Your task to perform on an android device: see tabs open on other devices in the chrome app Image 0: 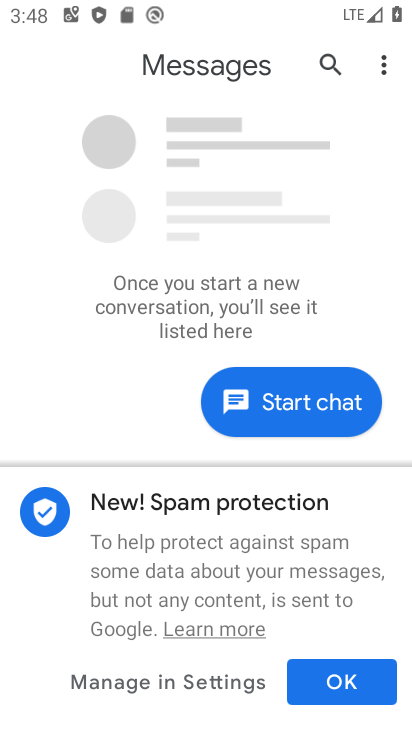
Step 0: press home button
Your task to perform on an android device: see tabs open on other devices in the chrome app Image 1: 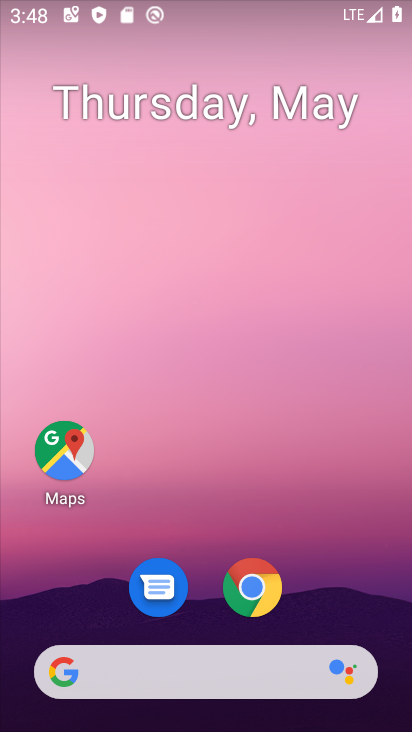
Step 1: drag from (272, 682) to (198, 138)
Your task to perform on an android device: see tabs open on other devices in the chrome app Image 2: 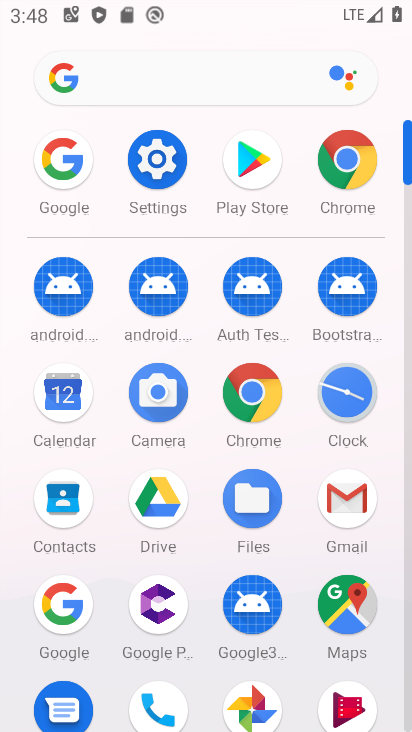
Step 2: drag from (241, 621) to (224, 522)
Your task to perform on an android device: see tabs open on other devices in the chrome app Image 3: 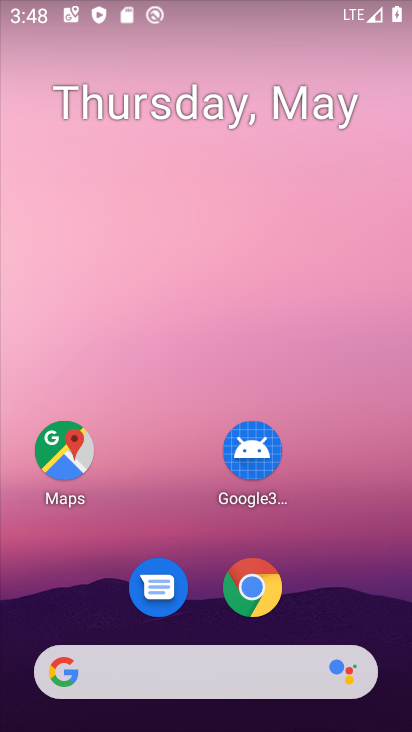
Step 3: click (236, 623)
Your task to perform on an android device: see tabs open on other devices in the chrome app Image 4: 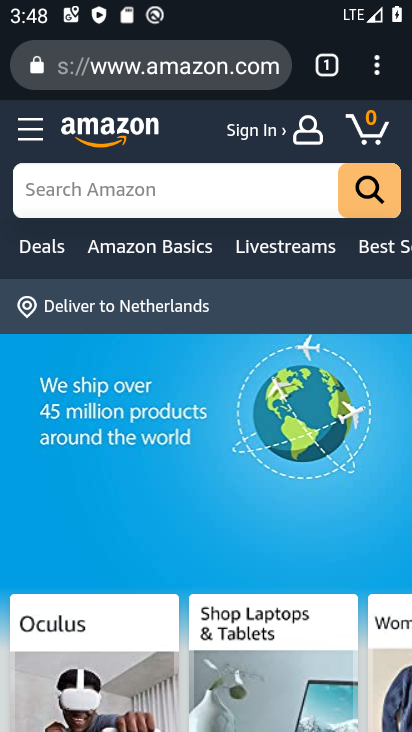
Step 4: task complete